Your task to perform on an android device: see sites visited before in the chrome app Image 0: 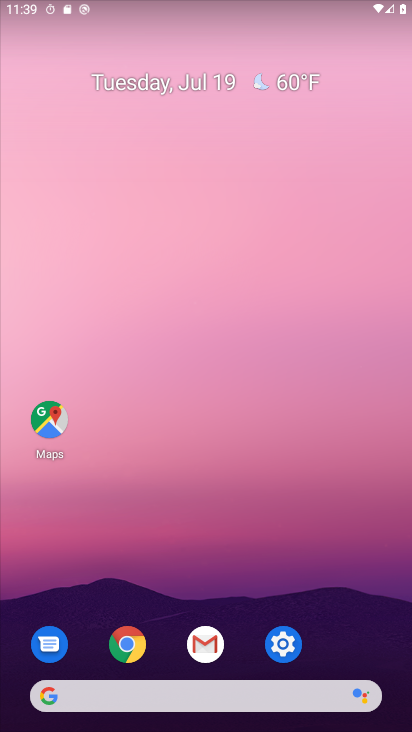
Step 0: click (125, 631)
Your task to perform on an android device: see sites visited before in the chrome app Image 1: 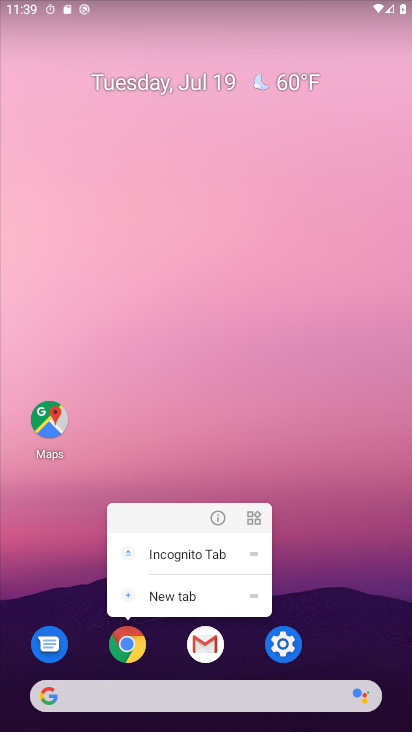
Step 1: click (127, 633)
Your task to perform on an android device: see sites visited before in the chrome app Image 2: 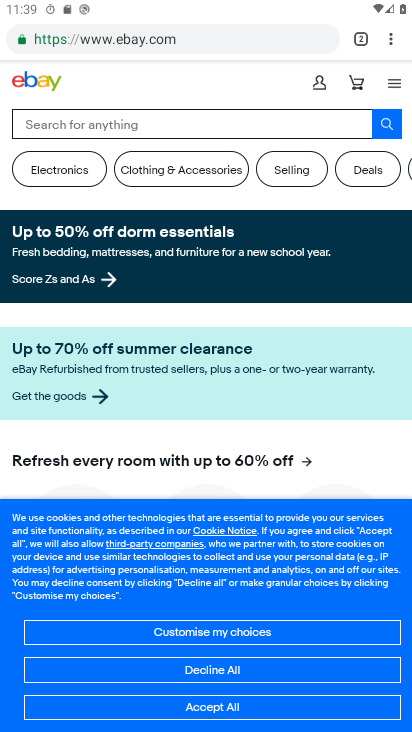
Step 2: click (387, 42)
Your task to perform on an android device: see sites visited before in the chrome app Image 3: 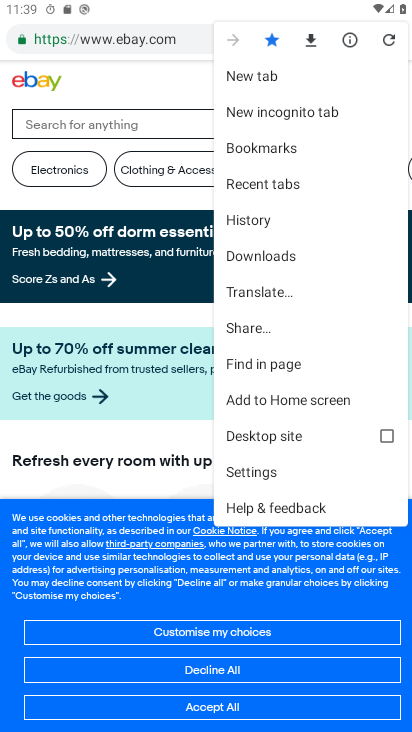
Step 3: click (261, 467)
Your task to perform on an android device: see sites visited before in the chrome app Image 4: 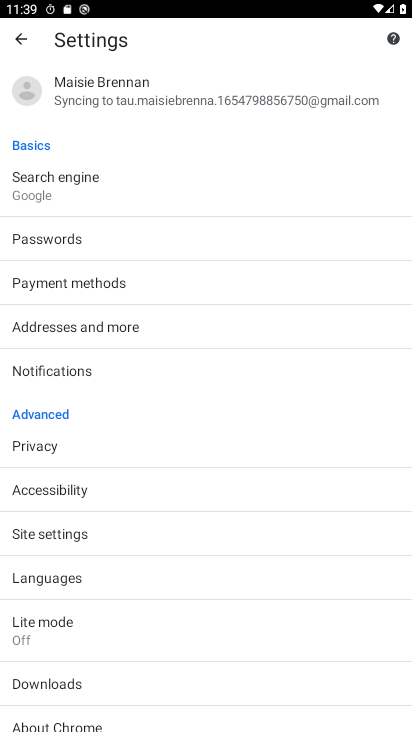
Step 4: click (57, 531)
Your task to perform on an android device: see sites visited before in the chrome app Image 5: 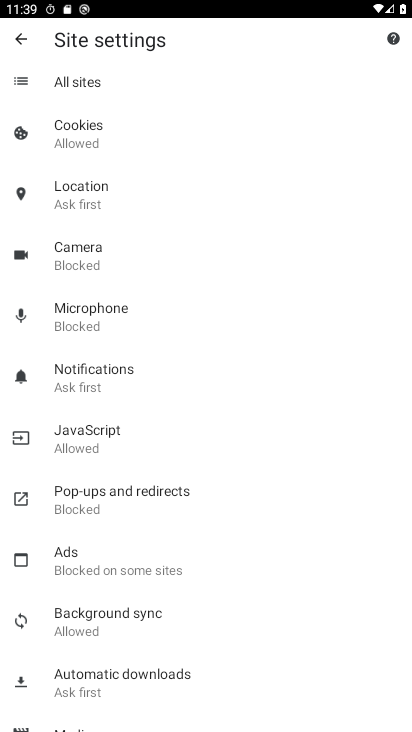
Step 5: click (62, 78)
Your task to perform on an android device: see sites visited before in the chrome app Image 6: 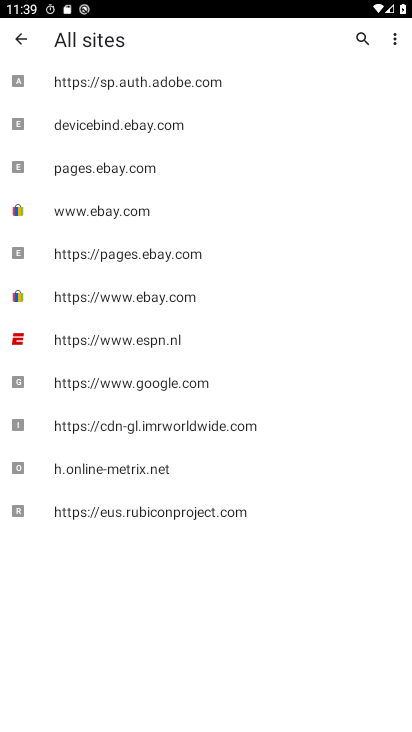
Step 6: click (106, 85)
Your task to perform on an android device: see sites visited before in the chrome app Image 7: 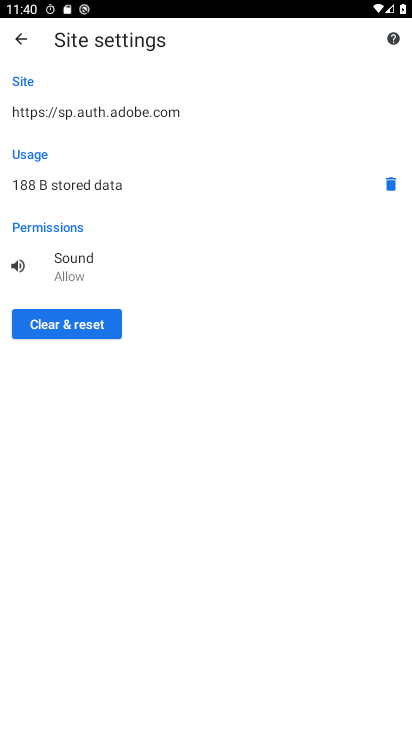
Step 7: task complete